Your task to perform on an android device: toggle translation in the chrome app Image 0: 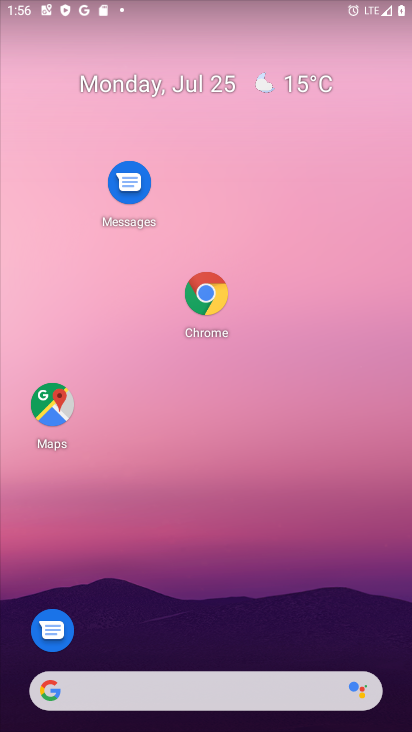
Step 0: drag from (319, 617) to (377, 110)
Your task to perform on an android device: toggle translation in the chrome app Image 1: 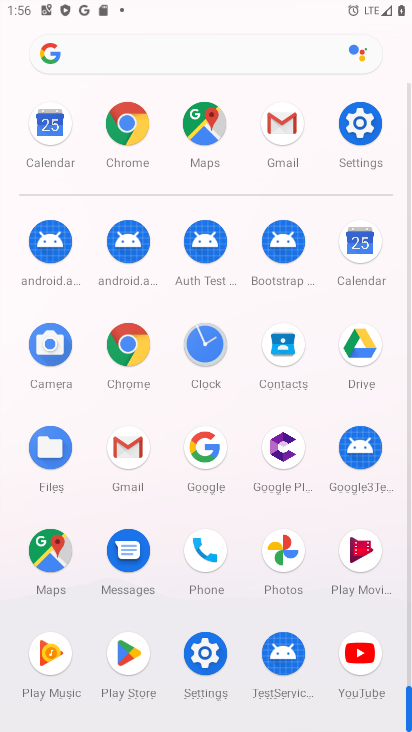
Step 1: click (128, 343)
Your task to perform on an android device: toggle translation in the chrome app Image 2: 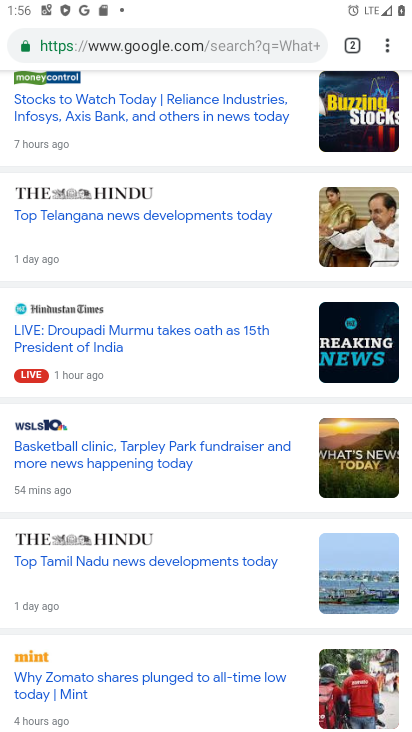
Step 2: drag from (385, 35) to (243, 558)
Your task to perform on an android device: toggle translation in the chrome app Image 3: 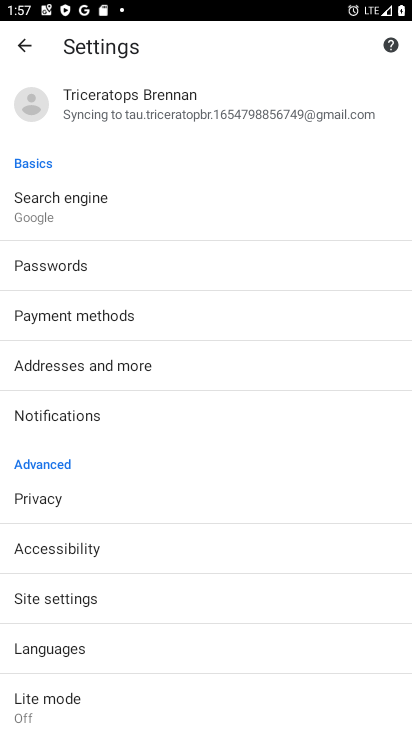
Step 3: drag from (228, 564) to (228, 246)
Your task to perform on an android device: toggle translation in the chrome app Image 4: 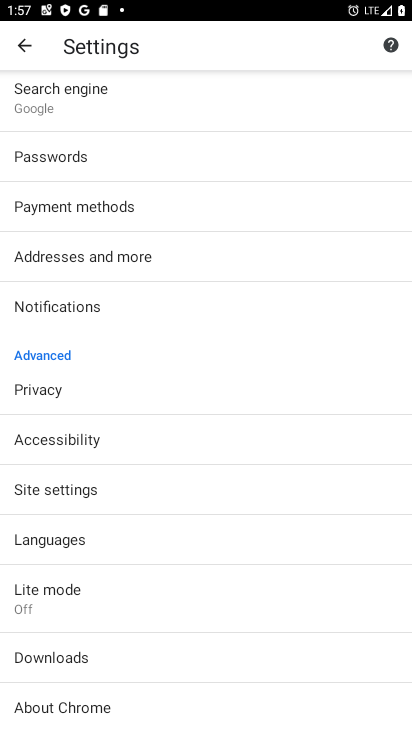
Step 4: click (78, 544)
Your task to perform on an android device: toggle translation in the chrome app Image 5: 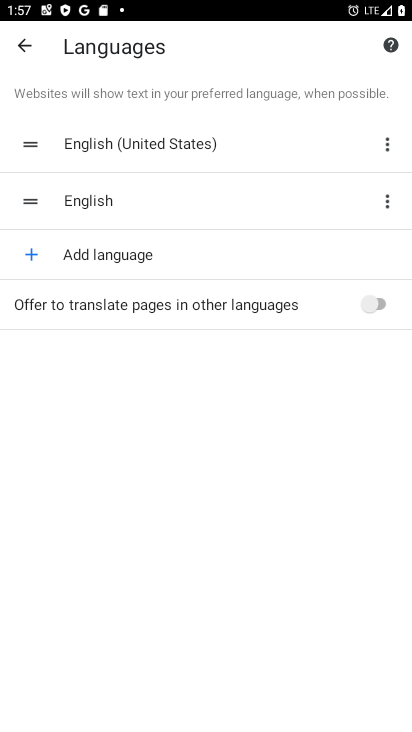
Step 5: click (139, 300)
Your task to perform on an android device: toggle translation in the chrome app Image 6: 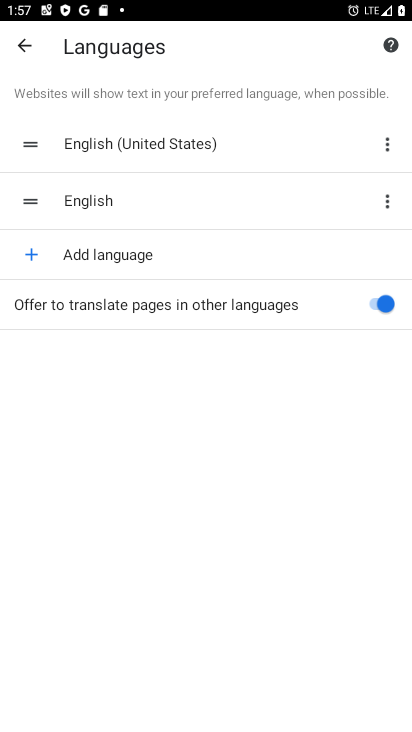
Step 6: task complete